Your task to perform on an android device: Search for pizza restaurants on Maps Image 0: 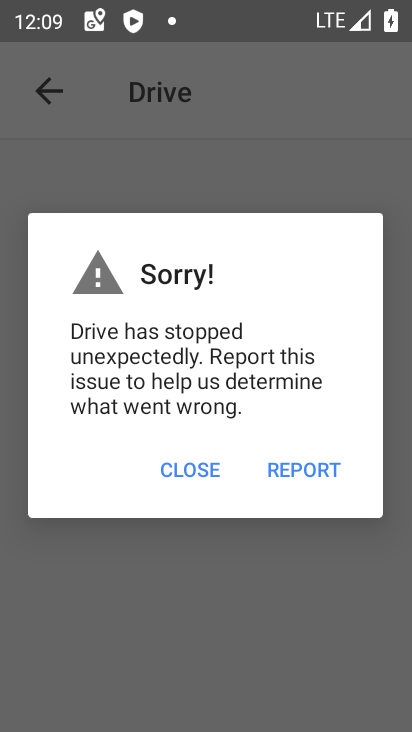
Step 0: press home button
Your task to perform on an android device: Search for pizza restaurants on Maps Image 1: 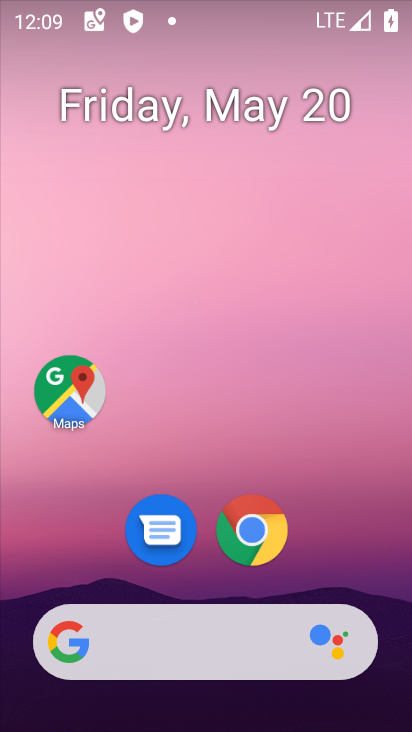
Step 1: click (80, 382)
Your task to perform on an android device: Search for pizza restaurants on Maps Image 2: 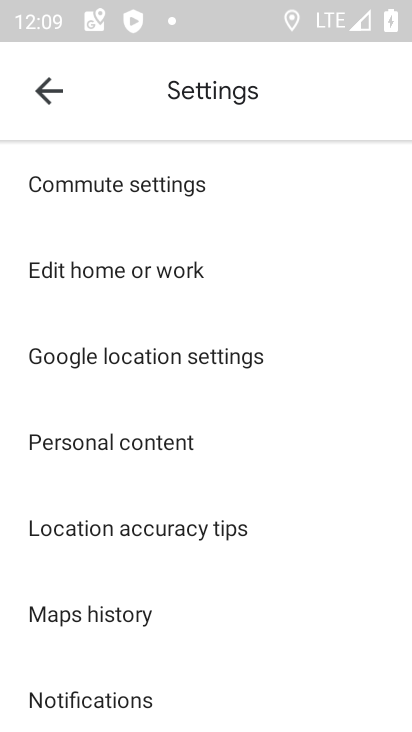
Step 2: click (53, 103)
Your task to perform on an android device: Search for pizza restaurants on Maps Image 3: 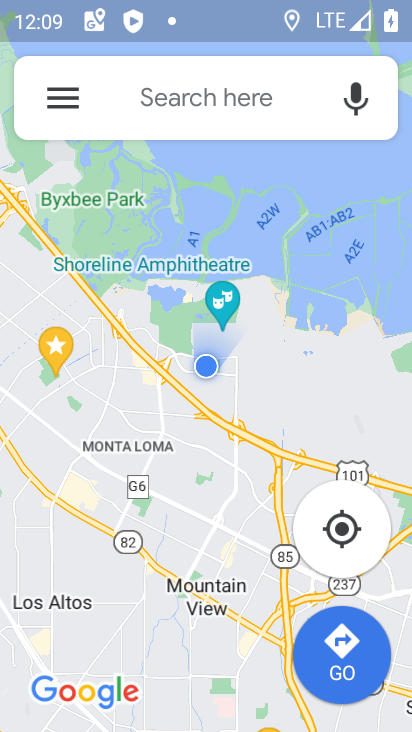
Step 3: click (250, 100)
Your task to perform on an android device: Search for pizza restaurants on Maps Image 4: 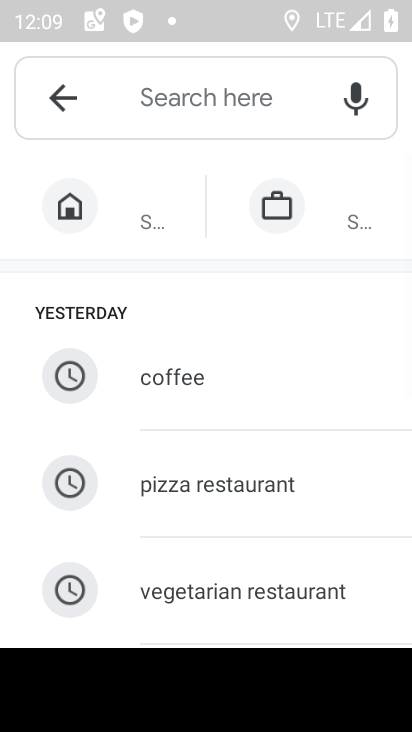
Step 4: click (194, 469)
Your task to perform on an android device: Search for pizza restaurants on Maps Image 5: 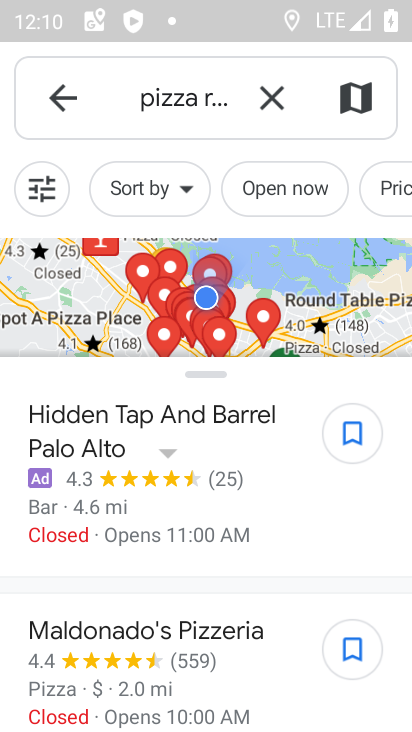
Step 5: task complete